Your task to perform on an android device: snooze an email in the gmail app Image 0: 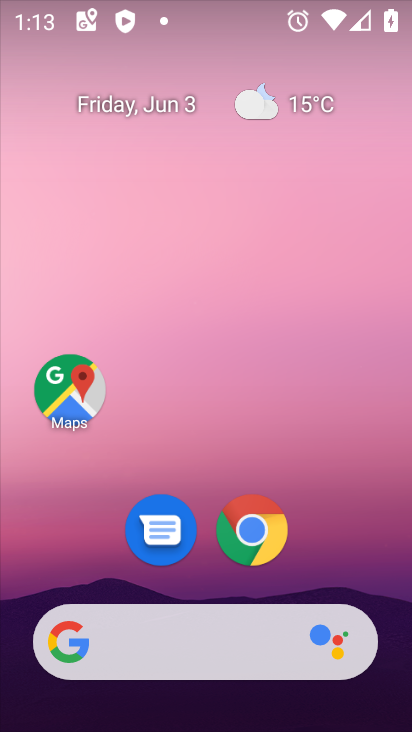
Step 0: drag from (337, 571) to (331, 114)
Your task to perform on an android device: snooze an email in the gmail app Image 1: 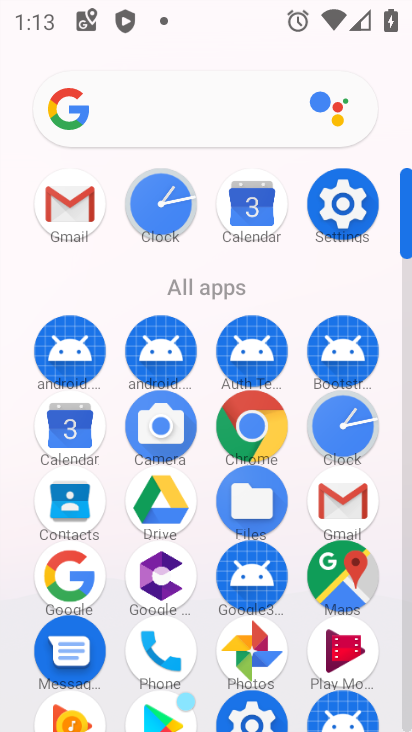
Step 1: click (82, 205)
Your task to perform on an android device: snooze an email in the gmail app Image 2: 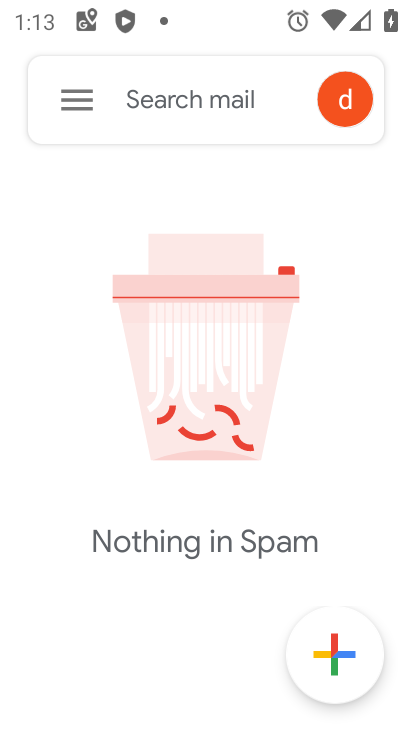
Step 2: click (70, 93)
Your task to perform on an android device: snooze an email in the gmail app Image 3: 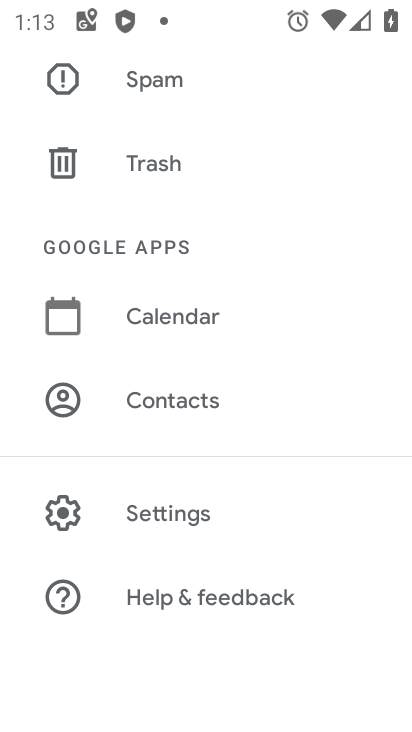
Step 3: drag from (310, 72) to (263, 718)
Your task to perform on an android device: snooze an email in the gmail app Image 4: 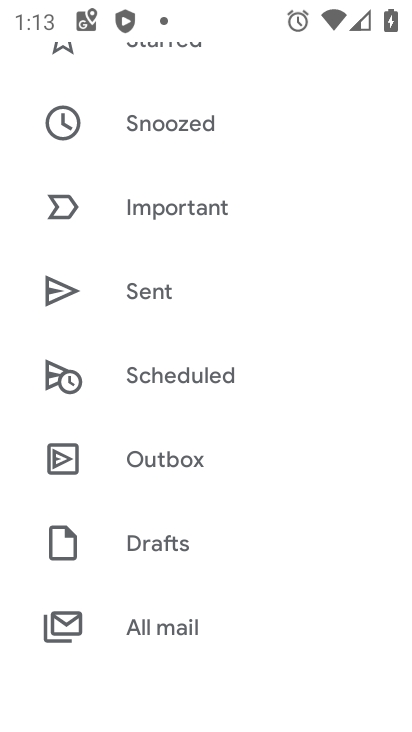
Step 4: click (185, 122)
Your task to perform on an android device: snooze an email in the gmail app Image 5: 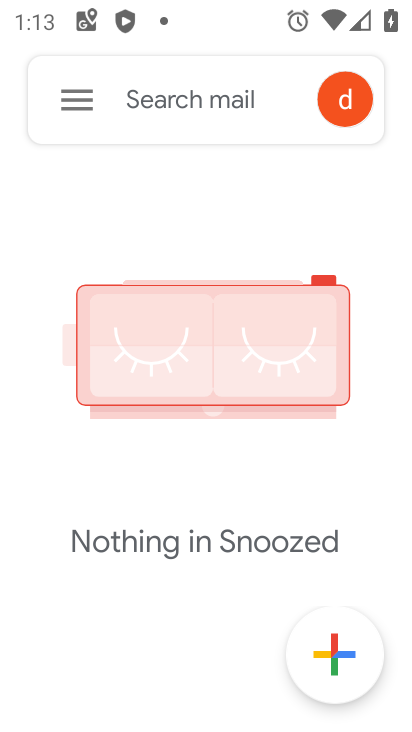
Step 5: task complete